Your task to perform on an android device: Open ESPN.com Image 0: 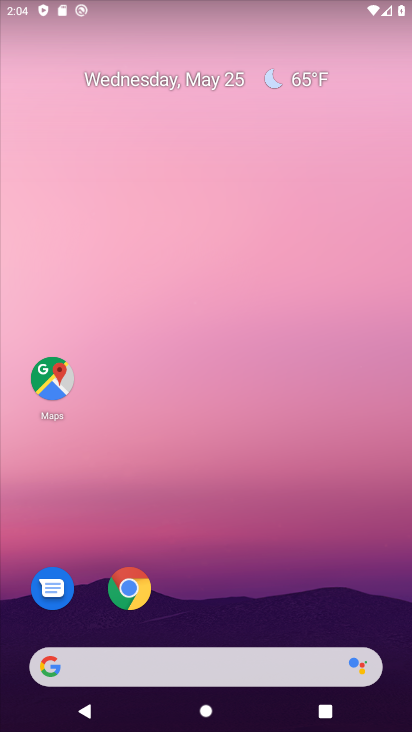
Step 0: click (133, 588)
Your task to perform on an android device: Open ESPN.com Image 1: 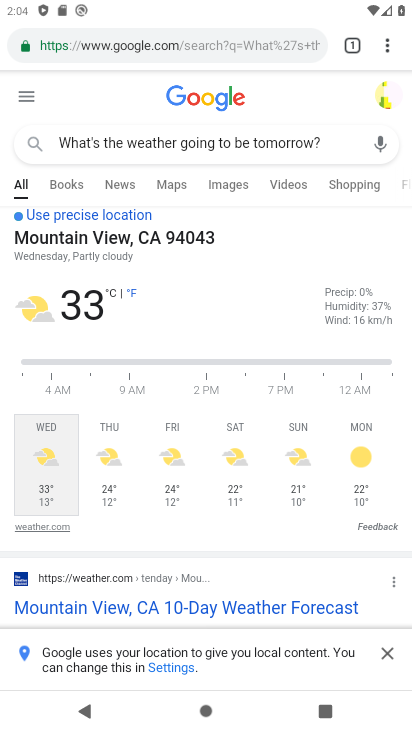
Step 1: click (146, 45)
Your task to perform on an android device: Open ESPN.com Image 2: 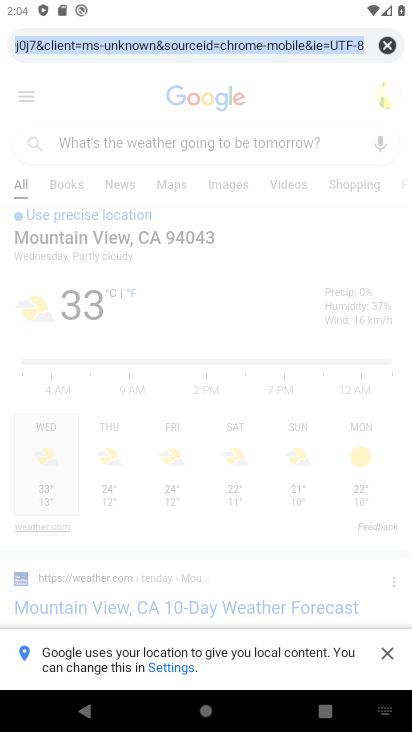
Step 2: type "ESPN.com"
Your task to perform on an android device: Open ESPN.com Image 3: 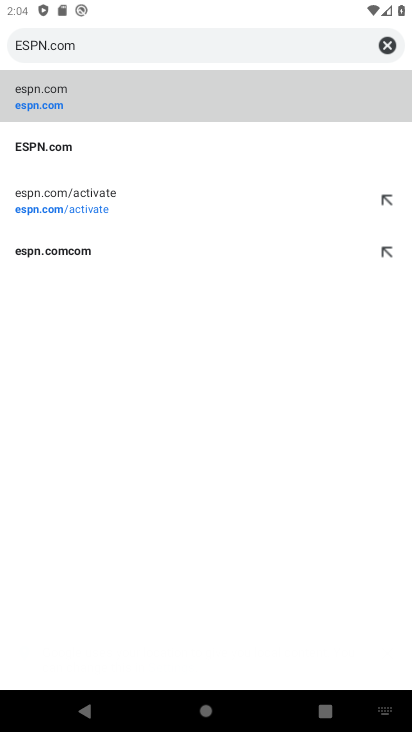
Step 3: click (60, 85)
Your task to perform on an android device: Open ESPN.com Image 4: 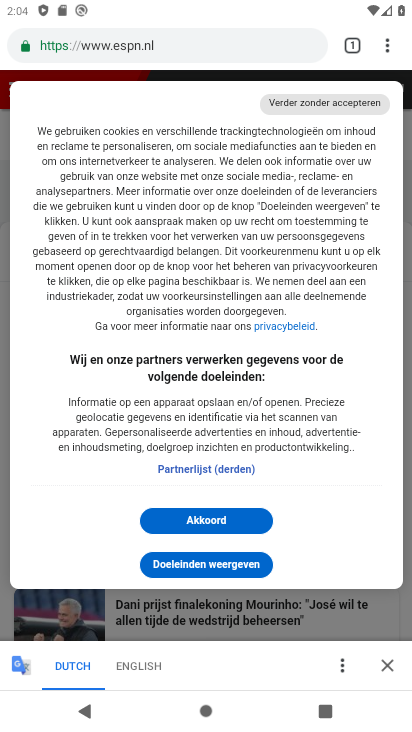
Step 4: task complete